Your task to perform on an android device: add a contact in the contacts app Image 0: 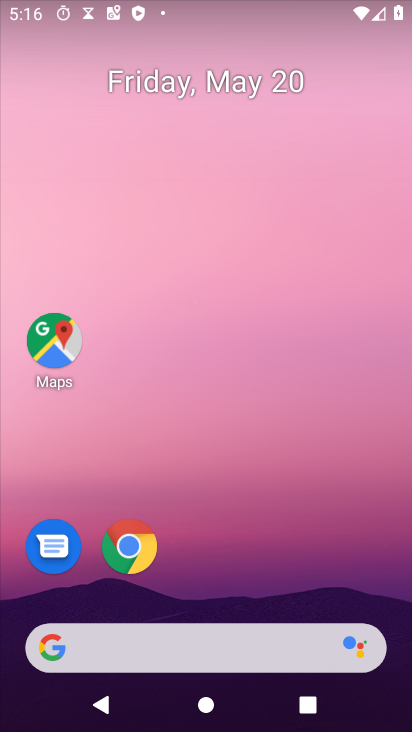
Step 0: drag from (229, 511) to (182, 94)
Your task to perform on an android device: add a contact in the contacts app Image 1: 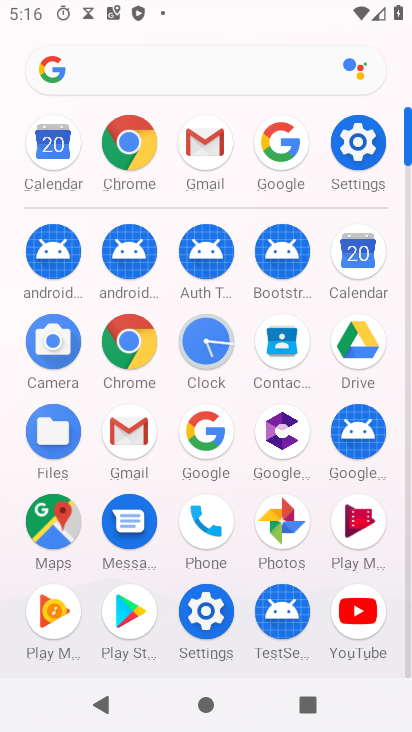
Step 1: click (280, 343)
Your task to perform on an android device: add a contact in the contacts app Image 2: 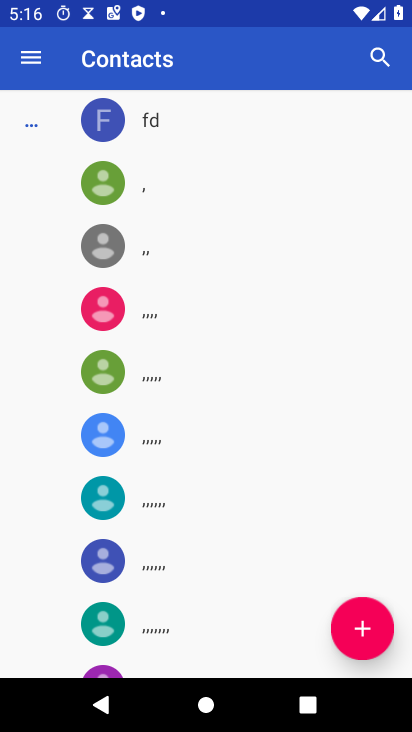
Step 2: click (361, 628)
Your task to perform on an android device: add a contact in the contacts app Image 3: 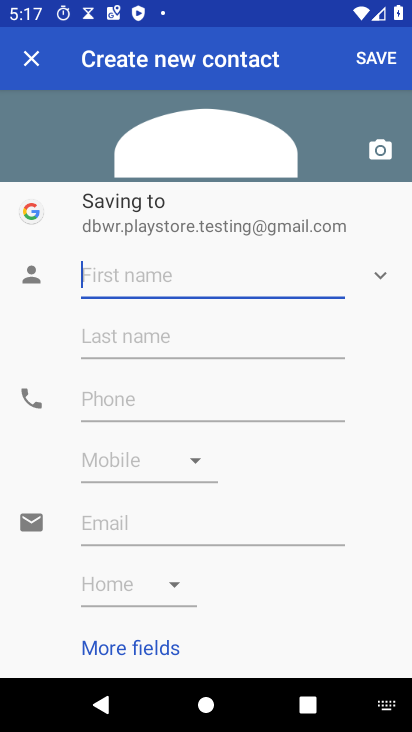
Step 3: click (162, 284)
Your task to perform on an android device: add a contact in the contacts app Image 4: 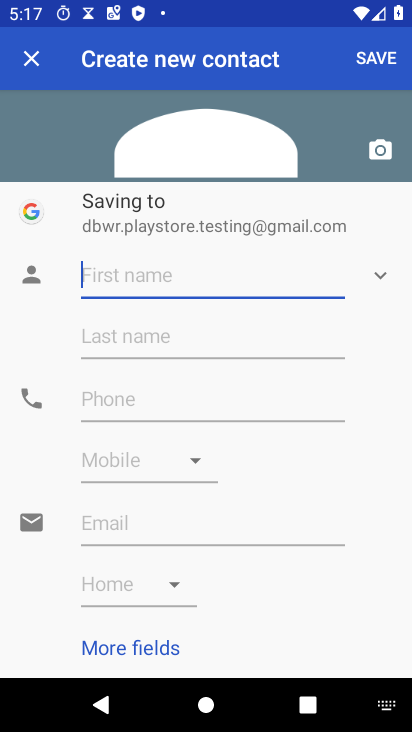
Step 4: type "Padmani"
Your task to perform on an android device: add a contact in the contacts app Image 5: 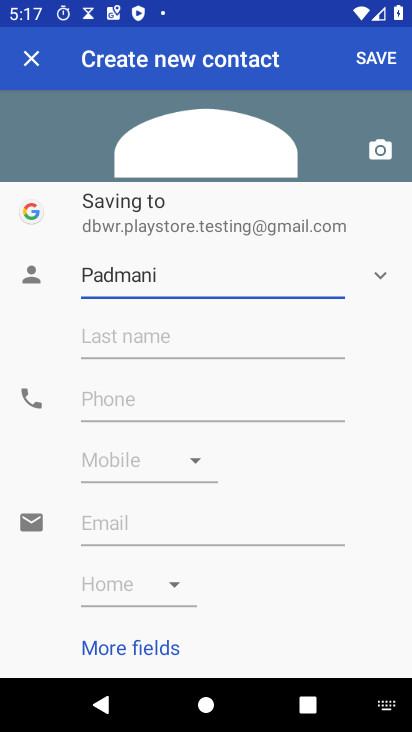
Step 5: click (224, 329)
Your task to perform on an android device: add a contact in the contacts app Image 6: 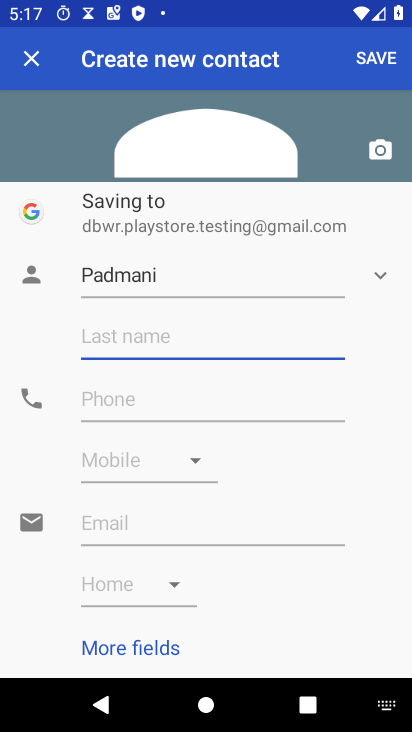
Step 6: type "Kohlapuri"
Your task to perform on an android device: add a contact in the contacts app Image 7: 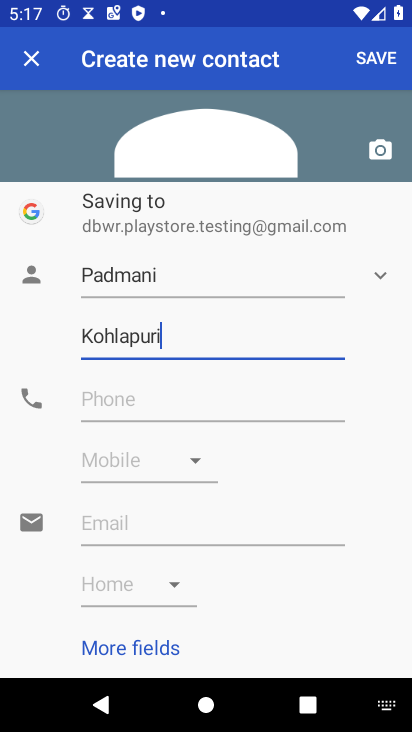
Step 7: click (201, 405)
Your task to perform on an android device: add a contact in the contacts app Image 8: 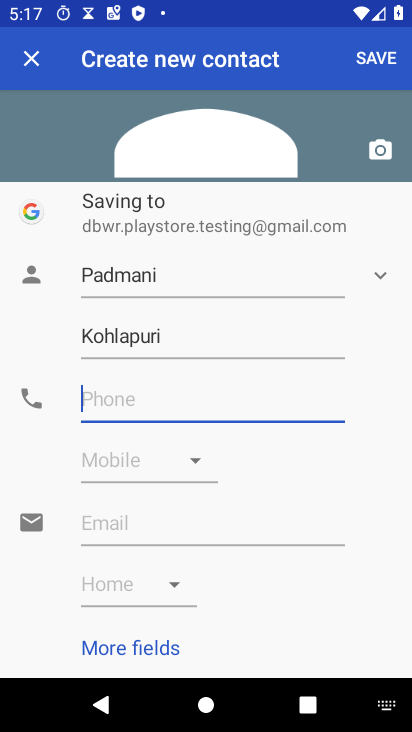
Step 8: type "098277538752"
Your task to perform on an android device: add a contact in the contacts app Image 9: 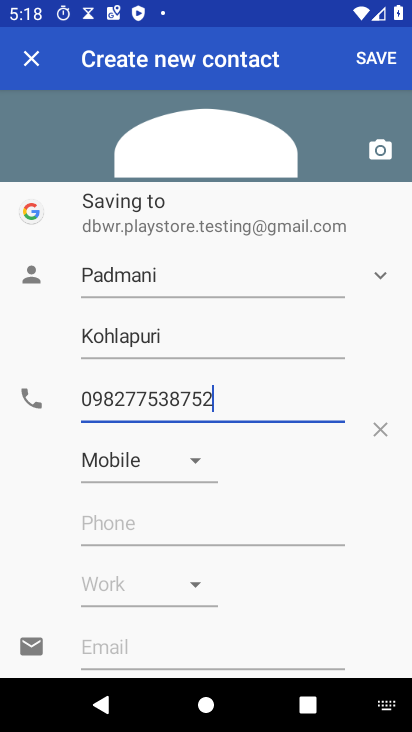
Step 9: click (383, 60)
Your task to perform on an android device: add a contact in the contacts app Image 10: 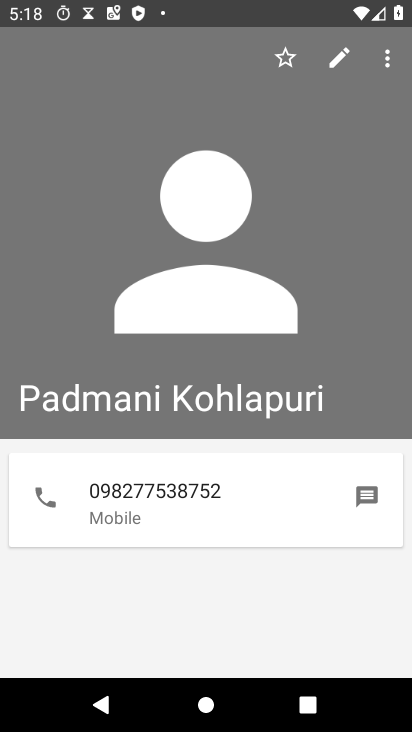
Step 10: task complete